Your task to perform on an android device: Do I have any events tomorrow? Image 0: 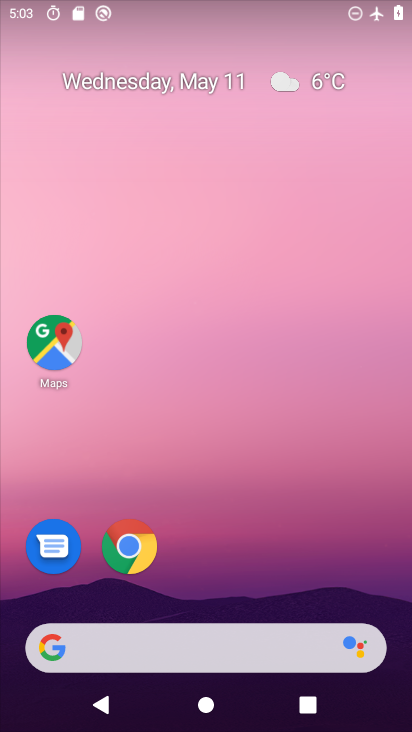
Step 0: drag from (154, 623) to (185, 233)
Your task to perform on an android device: Do I have any events tomorrow? Image 1: 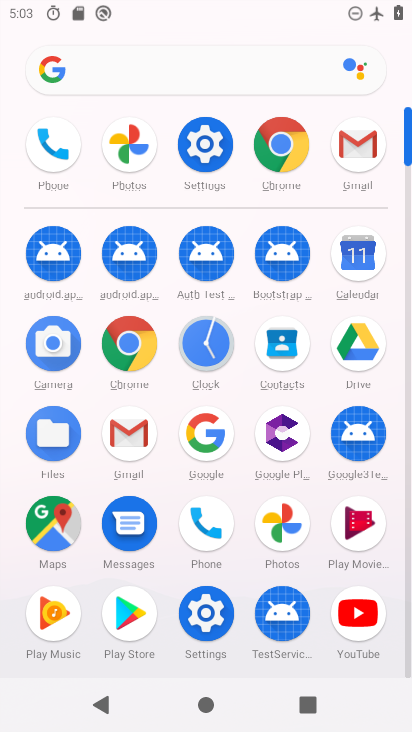
Step 1: click (349, 273)
Your task to perform on an android device: Do I have any events tomorrow? Image 2: 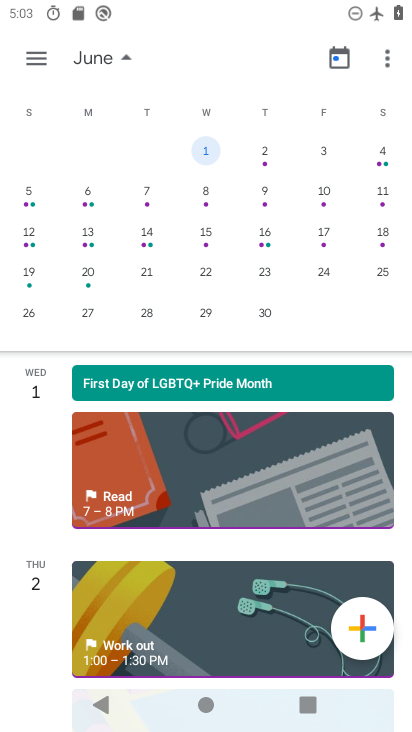
Step 2: drag from (118, 222) to (391, 275)
Your task to perform on an android device: Do I have any events tomorrow? Image 3: 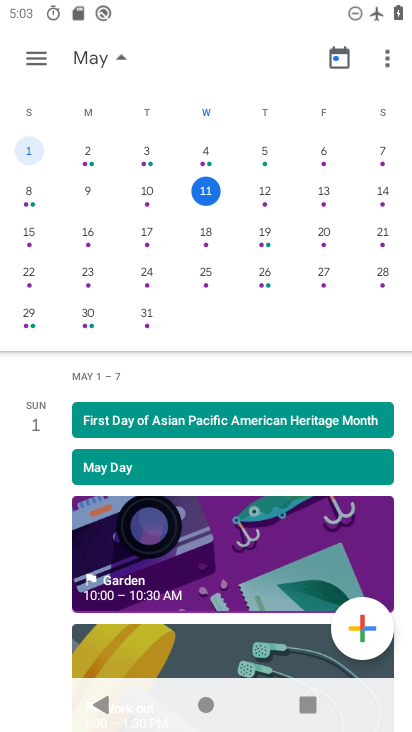
Step 3: click (263, 185)
Your task to perform on an android device: Do I have any events tomorrow? Image 4: 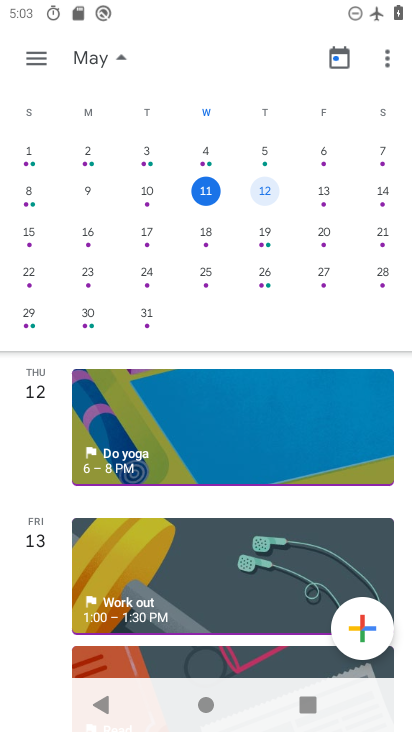
Step 4: drag from (175, 604) to (159, 390)
Your task to perform on an android device: Do I have any events tomorrow? Image 5: 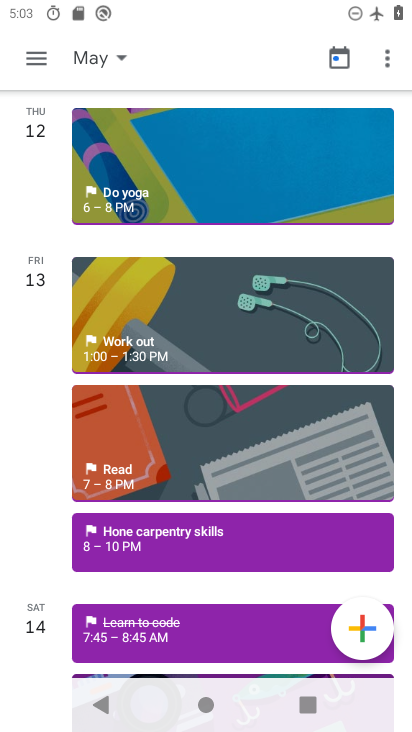
Step 5: click (156, 548)
Your task to perform on an android device: Do I have any events tomorrow? Image 6: 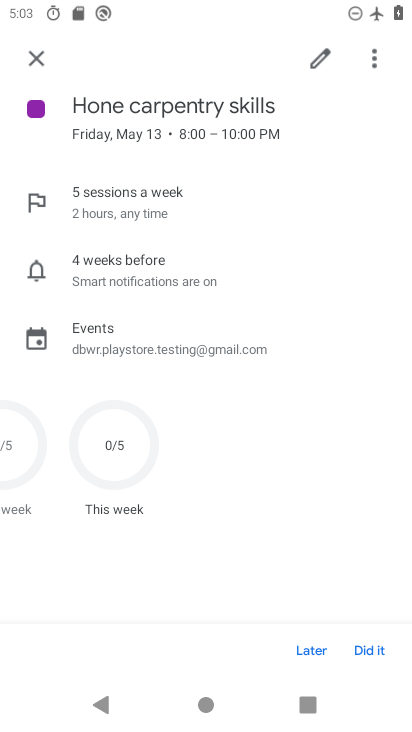
Step 6: task complete